Your task to perform on an android device: delete a single message in the gmail app Image 0: 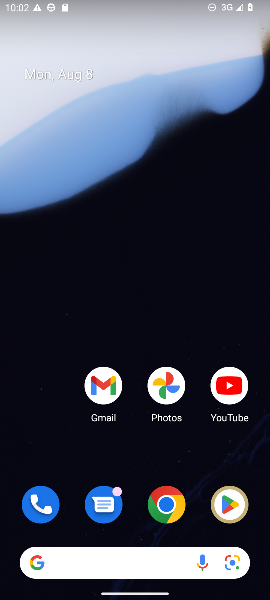
Step 0: click (111, 395)
Your task to perform on an android device: delete a single message in the gmail app Image 1: 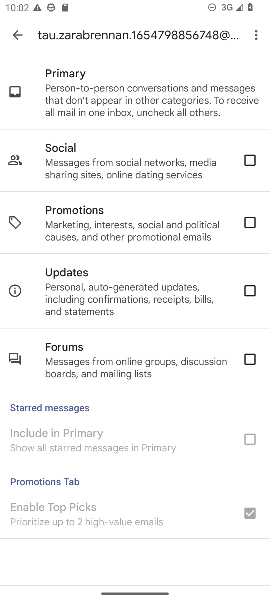
Step 1: click (17, 36)
Your task to perform on an android device: delete a single message in the gmail app Image 2: 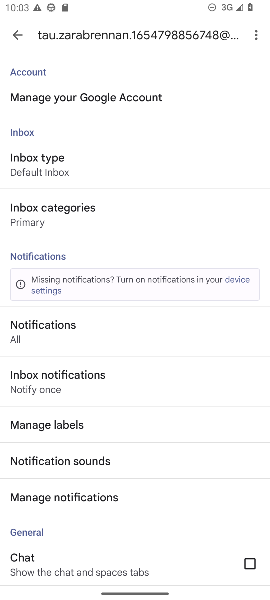
Step 2: drag from (68, 447) to (83, 334)
Your task to perform on an android device: delete a single message in the gmail app Image 3: 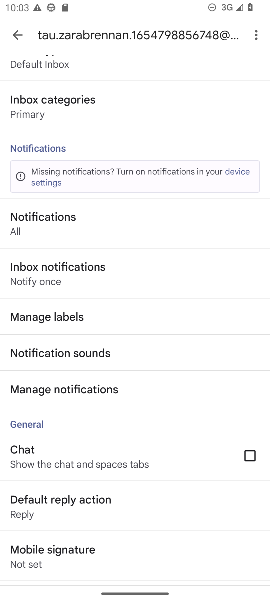
Step 3: click (18, 35)
Your task to perform on an android device: delete a single message in the gmail app Image 4: 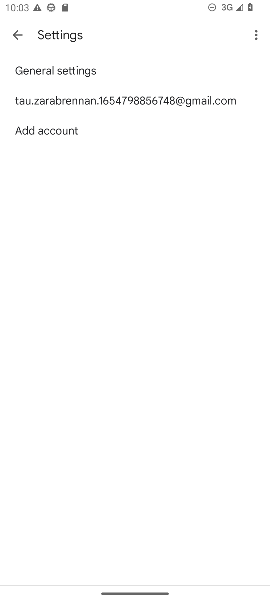
Step 4: click (20, 33)
Your task to perform on an android device: delete a single message in the gmail app Image 5: 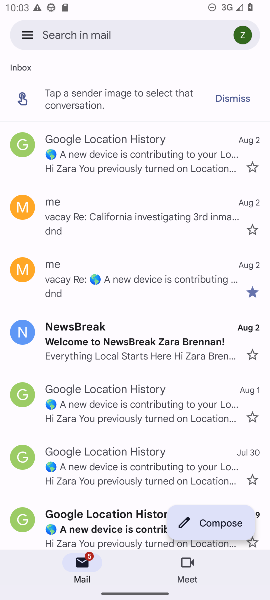
Step 5: click (118, 432)
Your task to perform on an android device: delete a single message in the gmail app Image 6: 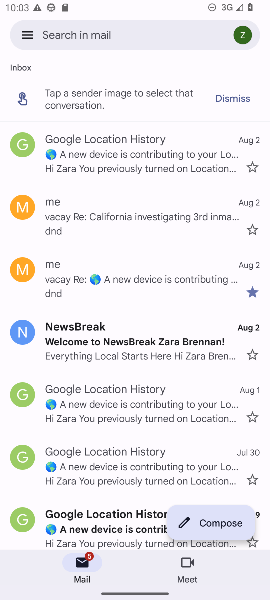
Step 6: click (18, 397)
Your task to perform on an android device: delete a single message in the gmail app Image 7: 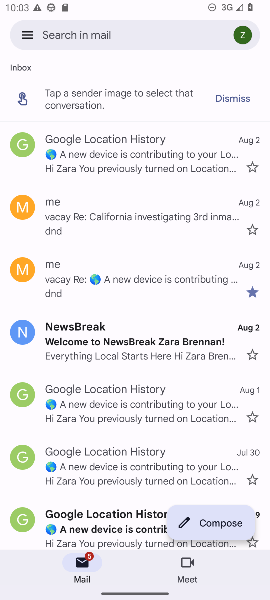
Step 7: click (24, 399)
Your task to perform on an android device: delete a single message in the gmail app Image 8: 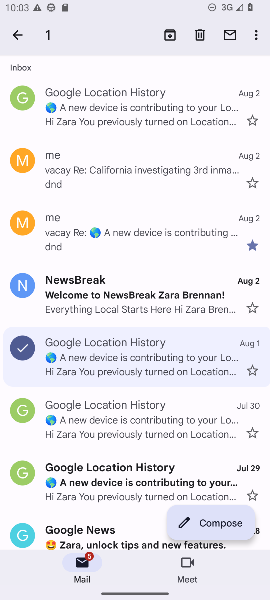
Step 8: click (200, 34)
Your task to perform on an android device: delete a single message in the gmail app Image 9: 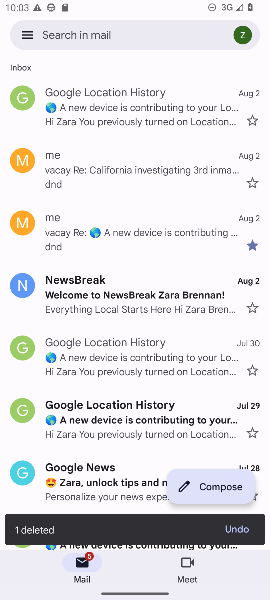
Step 9: task complete